Your task to perform on an android device: Go to calendar. Show me events next week Image 0: 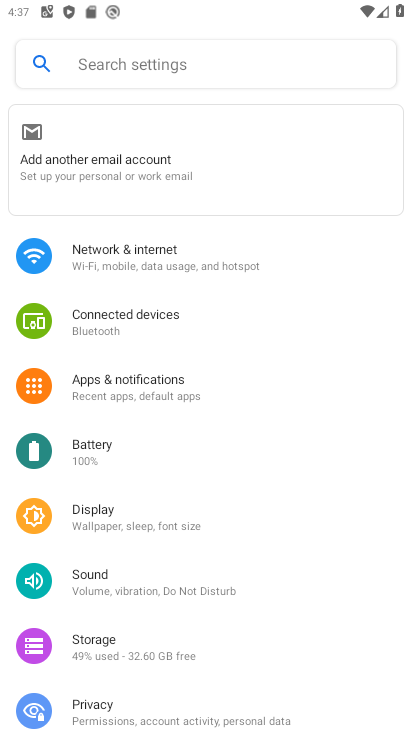
Step 0: press home button
Your task to perform on an android device: Go to calendar. Show me events next week Image 1: 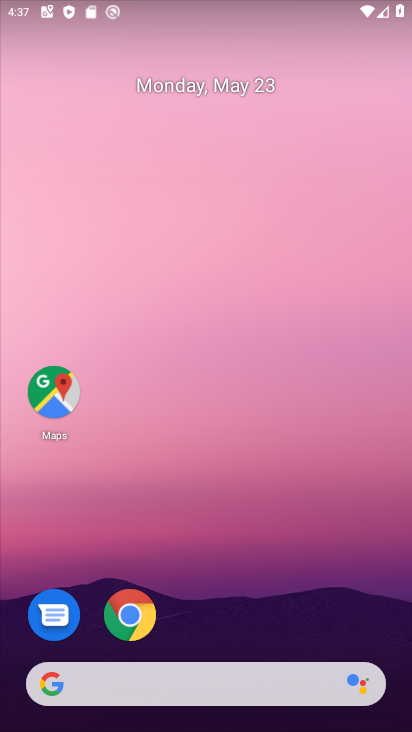
Step 1: drag from (199, 580) to (286, 97)
Your task to perform on an android device: Go to calendar. Show me events next week Image 2: 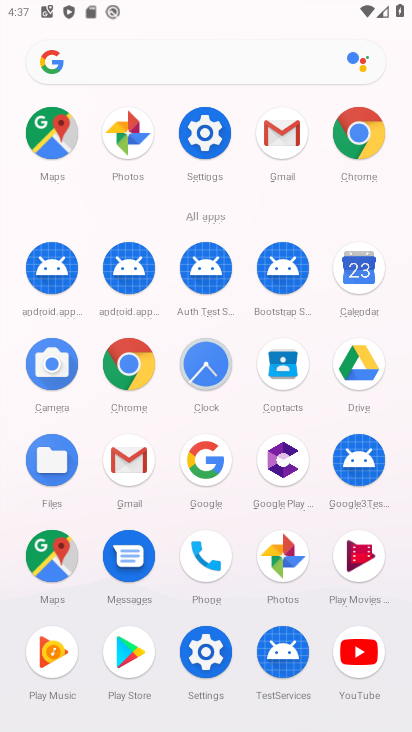
Step 2: click (362, 277)
Your task to perform on an android device: Go to calendar. Show me events next week Image 3: 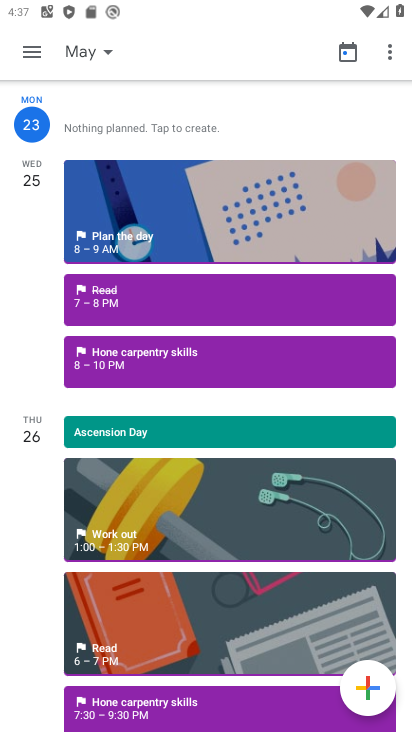
Step 3: click (103, 48)
Your task to perform on an android device: Go to calendar. Show me events next week Image 4: 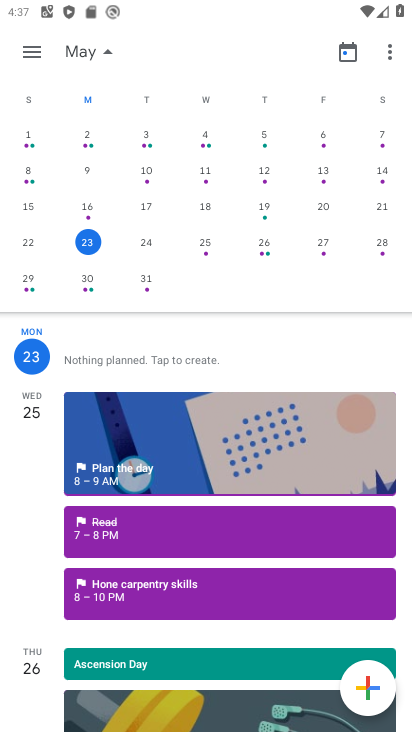
Step 4: click (84, 283)
Your task to perform on an android device: Go to calendar. Show me events next week Image 5: 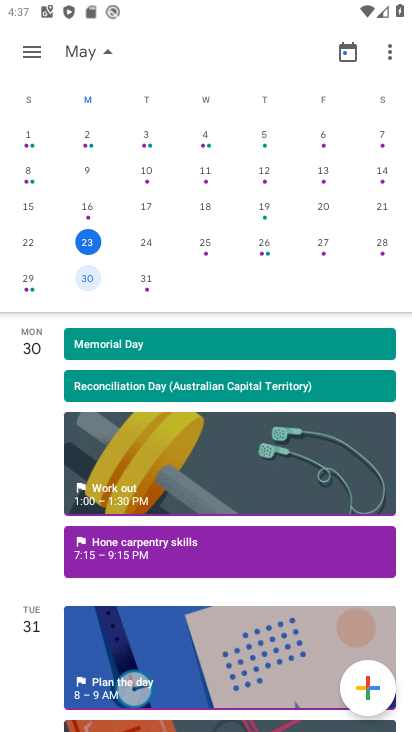
Step 5: click (100, 352)
Your task to perform on an android device: Go to calendar. Show me events next week Image 6: 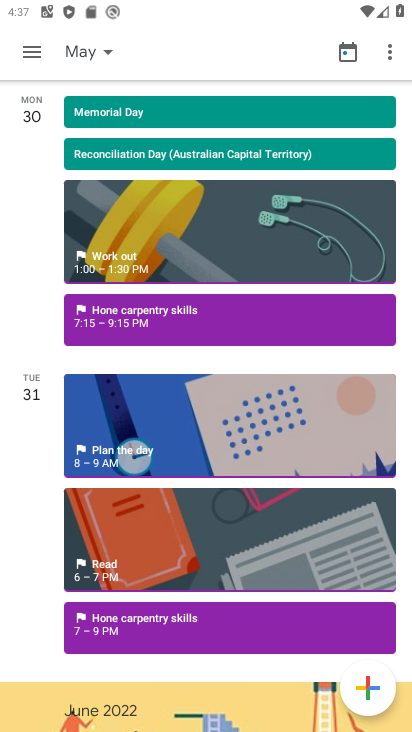
Step 6: task complete